Your task to perform on an android device: Go to sound settings Image 0: 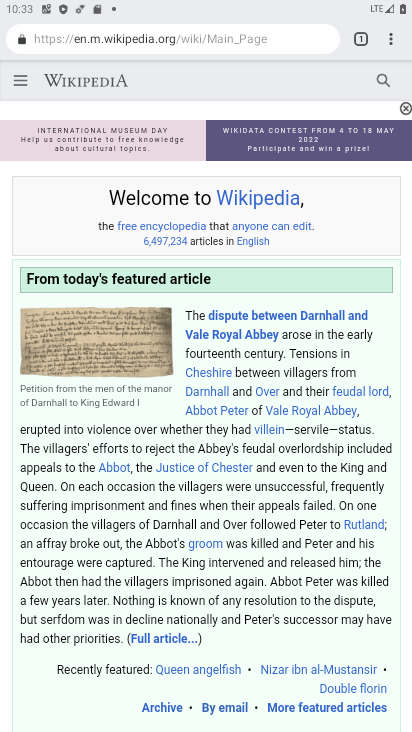
Step 0: press home button
Your task to perform on an android device: Go to sound settings Image 1: 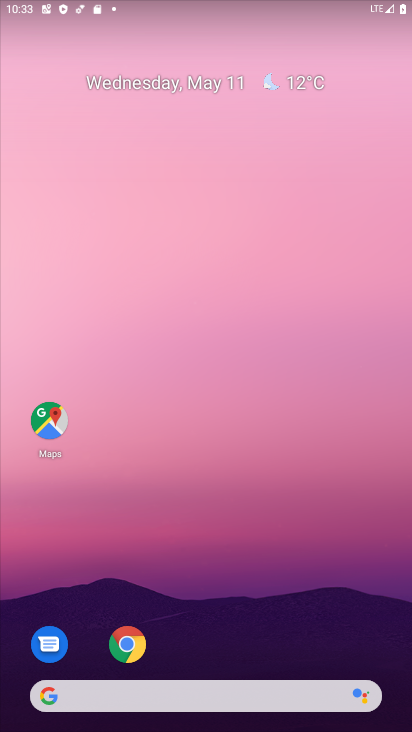
Step 1: drag from (289, 636) to (323, 189)
Your task to perform on an android device: Go to sound settings Image 2: 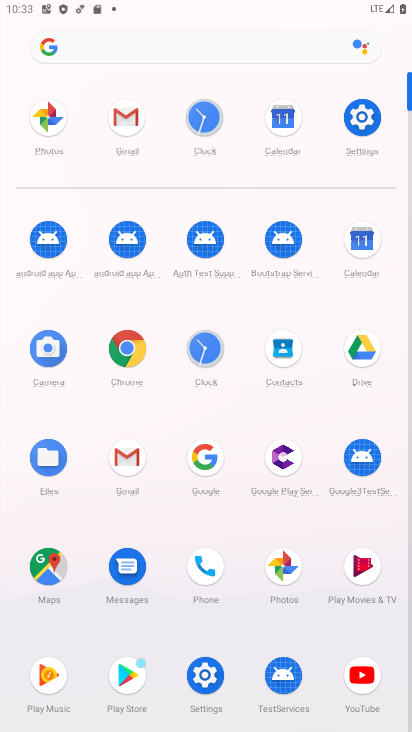
Step 2: click (360, 148)
Your task to perform on an android device: Go to sound settings Image 3: 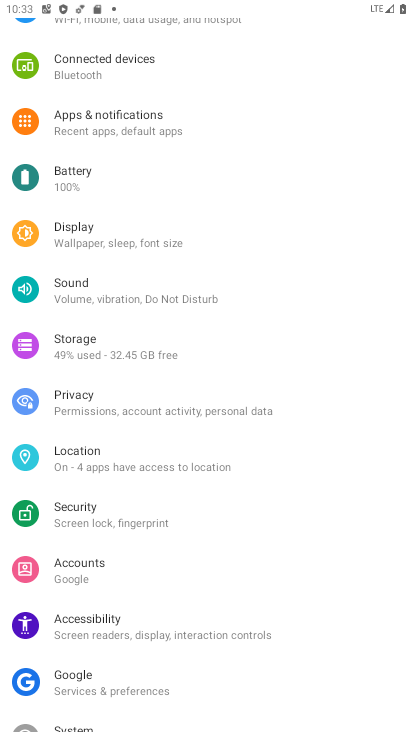
Step 3: click (130, 304)
Your task to perform on an android device: Go to sound settings Image 4: 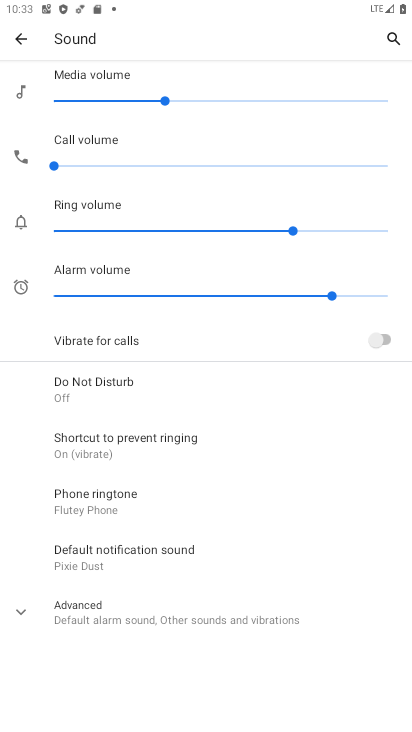
Step 4: task complete